Your task to perform on an android device: Go to notification settings Image 0: 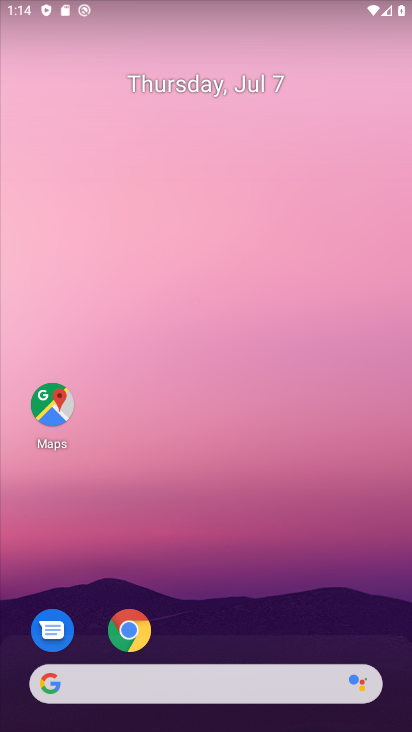
Step 0: drag from (225, 638) to (222, 276)
Your task to perform on an android device: Go to notification settings Image 1: 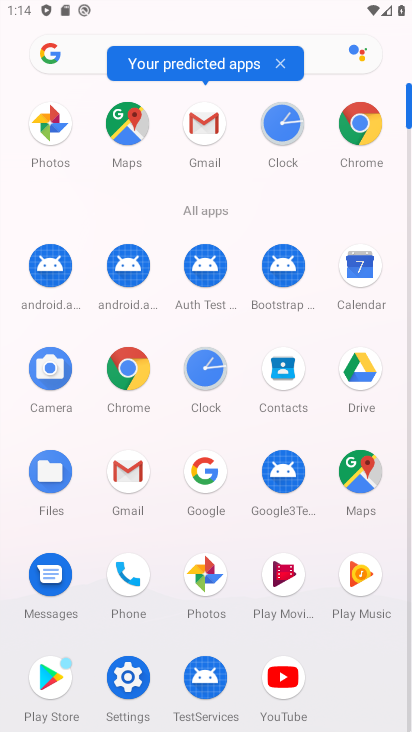
Step 1: click (130, 679)
Your task to perform on an android device: Go to notification settings Image 2: 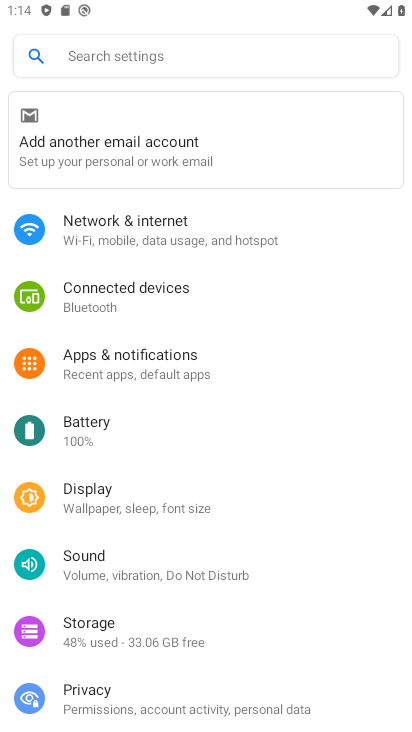
Step 2: click (198, 372)
Your task to perform on an android device: Go to notification settings Image 3: 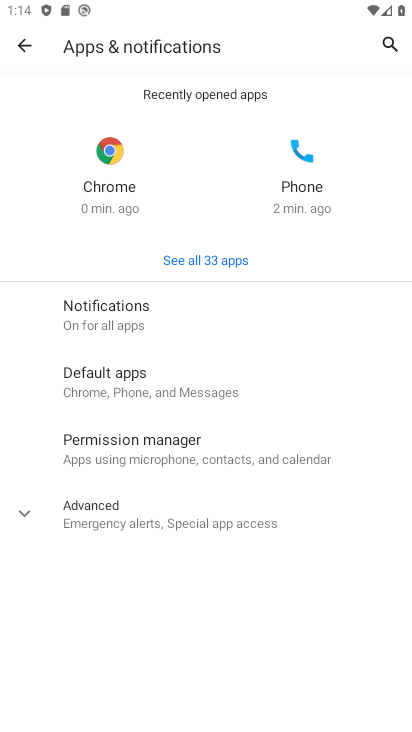
Step 3: click (173, 304)
Your task to perform on an android device: Go to notification settings Image 4: 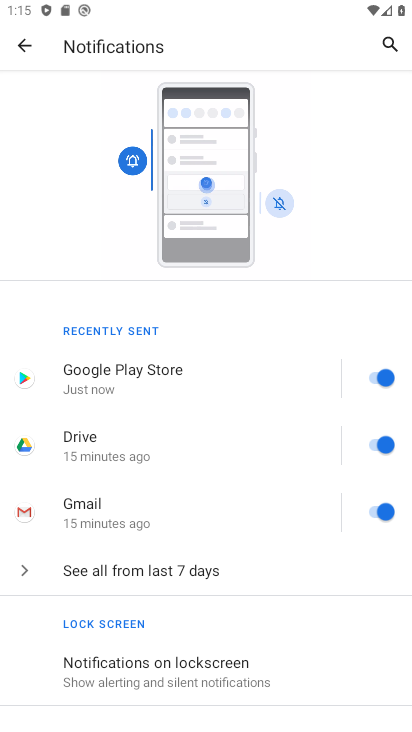
Step 4: task complete